Your task to perform on an android device: turn on javascript in the chrome app Image 0: 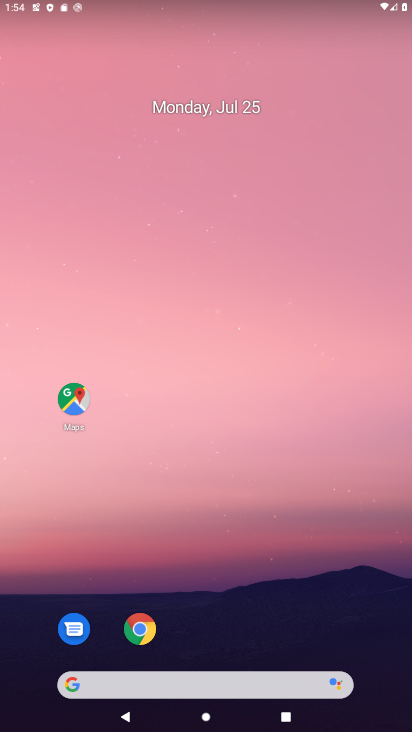
Step 0: drag from (198, 115) to (198, 33)
Your task to perform on an android device: turn on javascript in the chrome app Image 1: 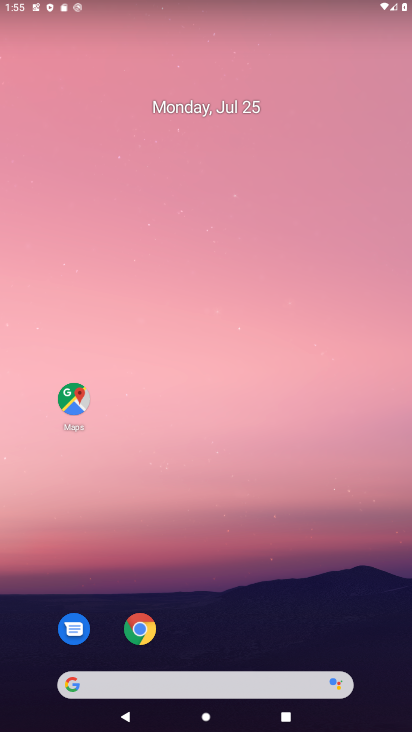
Step 1: drag from (173, 655) to (198, 127)
Your task to perform on an android device: turn on javascript in the chrome app Image 2: 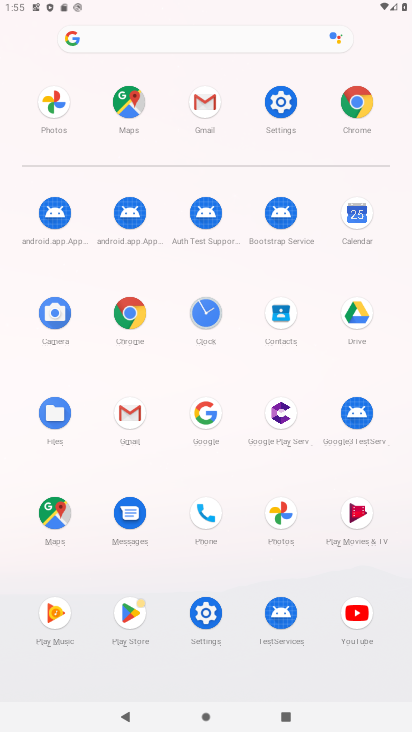
Step 2: click (126, 304)
Your task to perform on an android device: turn on javascript in the chrome app Image 3: 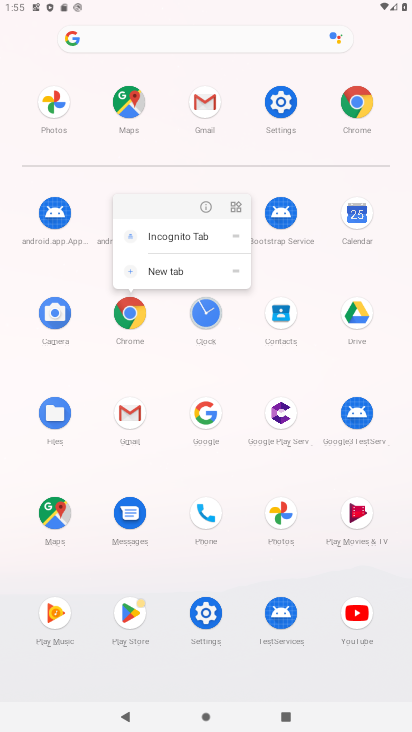
Step 3: click (204, 206)
Your task to perform on an android device: turn on javascript in the chrome app Image 4: 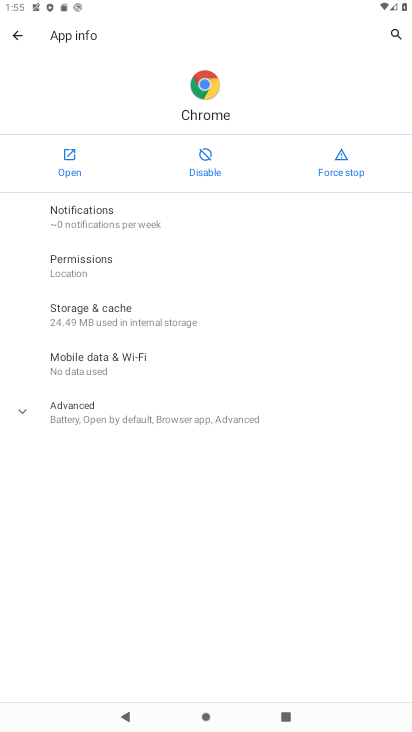
Step 4: click (71, 163)
Your task to perform on an android device: turn on javascript in the chrome app Image 5: 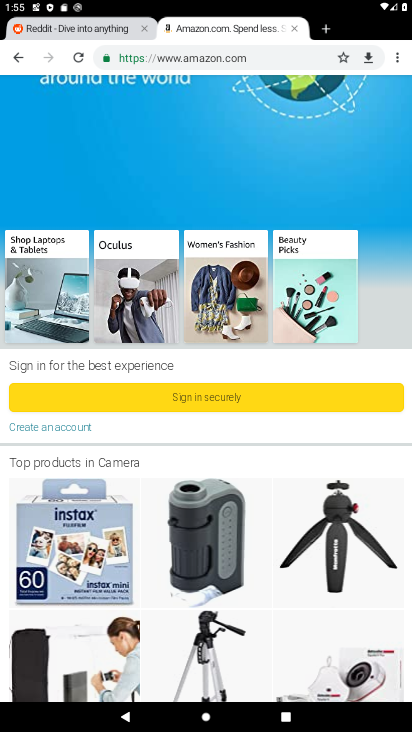
Step 5: drag from (397, 65) to (303, 424)
Your task to perform on an android device: turn on javascript in the chrome app Image 6: 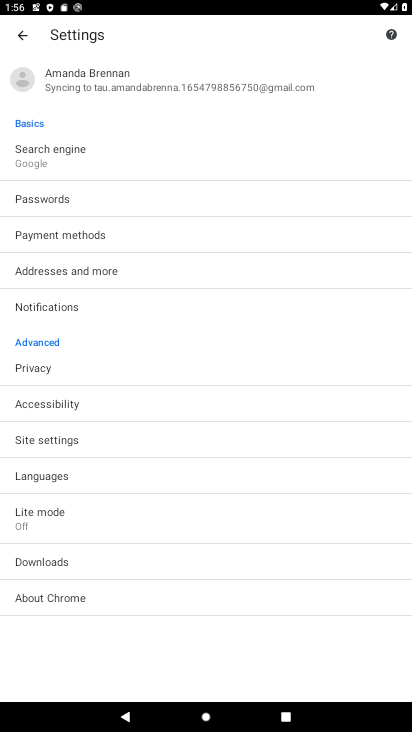
Step 6: click (101, 432)
Your task to perform on an android device: turn on javascript in the chrome app Image 7: 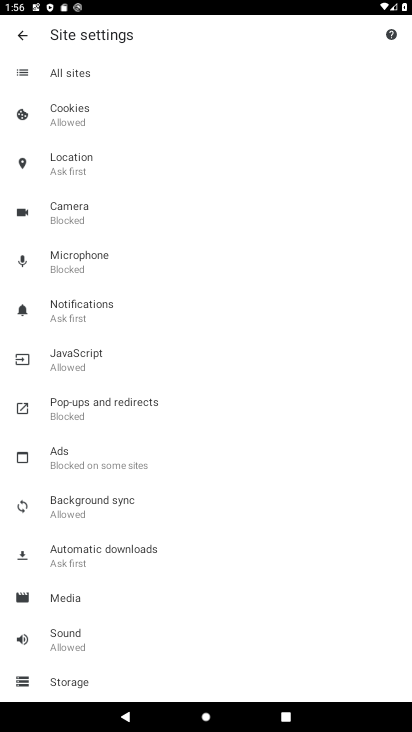
Step 7: drag from (203, 563) to (232, 236)
Your task to perform on an android device: turn on javascript in the chrome app Image 8: 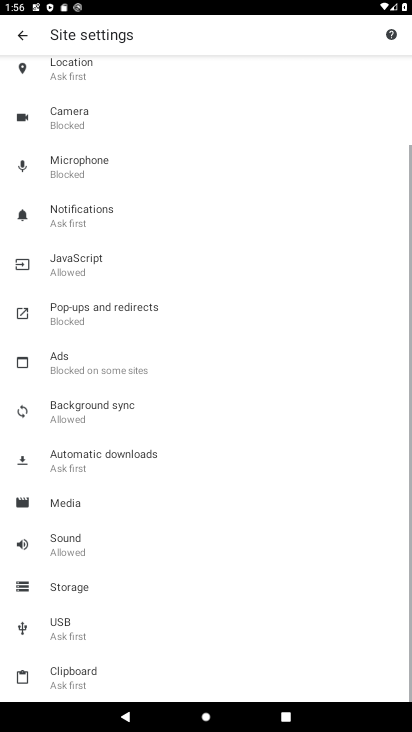
Step 8: click (68, 271)
Your task to perform on an android device: turn on javascript in the chrome app Image 9: 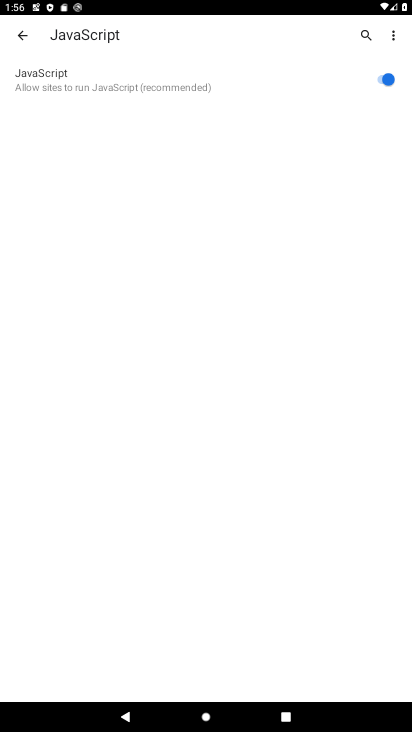
Step 9: task complete